Your task to perform on an android device: turn on showing notifications on the lock screen Image 0: 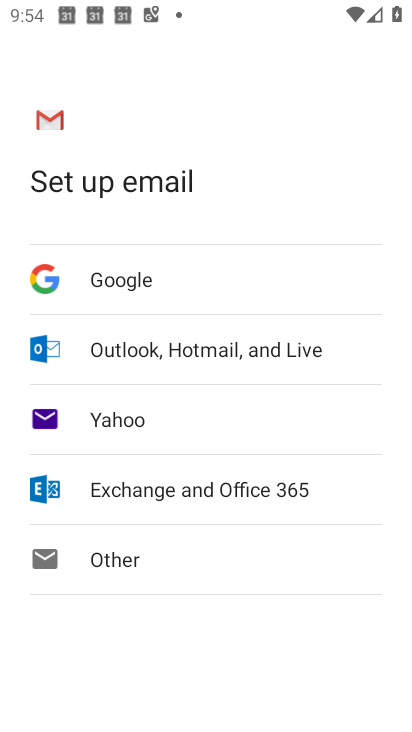
Step 0: press home button
Your task to perform on an android device: turn on showing notifications on the lock screen Image 1: 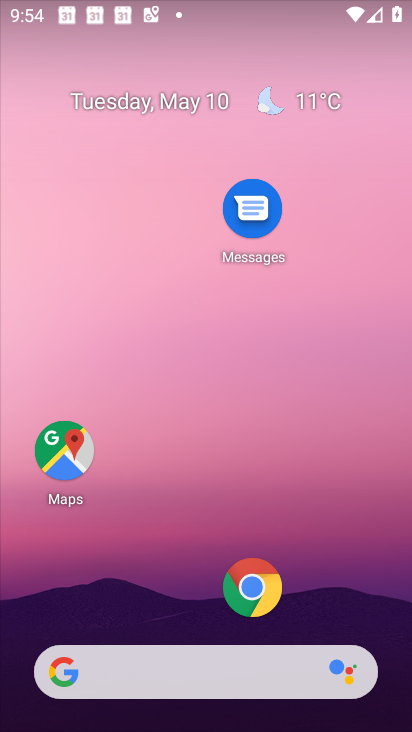
Step 1: drag from (155, 590) to (126, 4)
Your task to perform on an android device: turn on showing notifications on the lock screen Image 2: 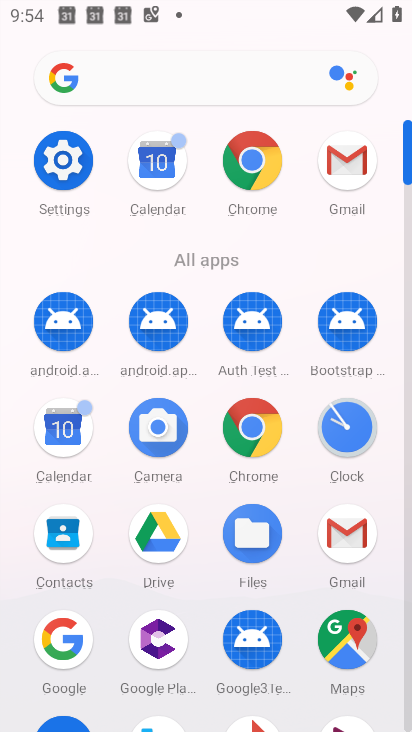
Step 2: click (81, 159)
Your task to perform on an android device: turn on showing notifications on the lock screen Image 3: 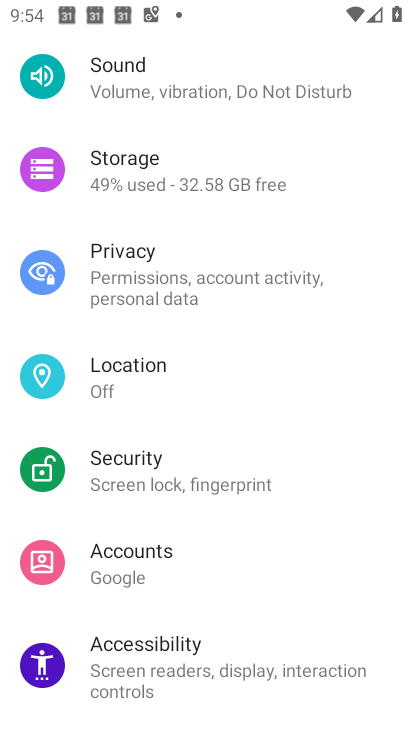
Step 3: drag from (195, 217) to (257, 704)
Your task to perform on an android device: turn on showing notifications on the lock screen Image 4: 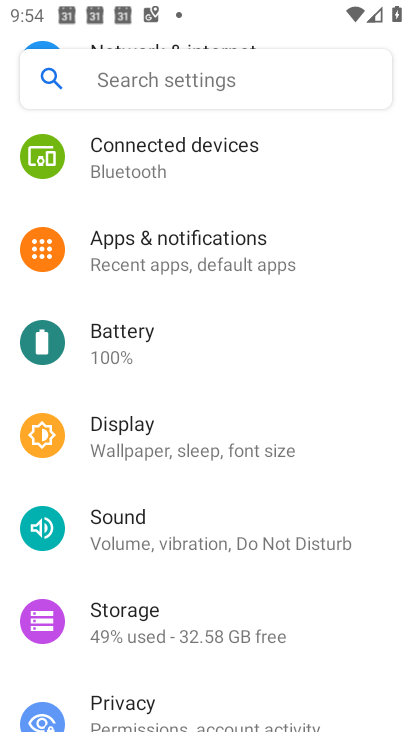
Step 4: click (231, 260)
Your task to perform on an android device: turn on showing notifications on the lock screen Image 5: 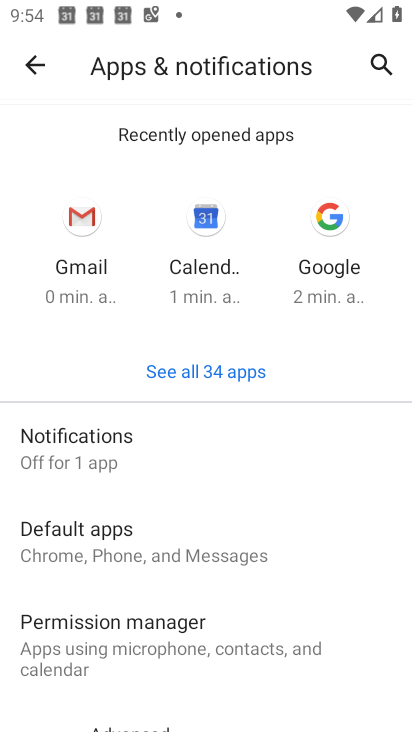
Step 5: click (102, 459)
Your task to perform on an android device: turn on showing notifications on the lock screen Image 6: 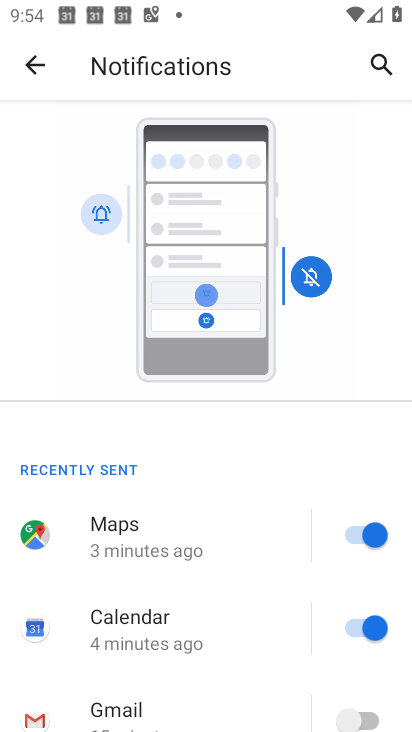
Step 6: drag from (129, 641) to (190, 206)
Your task to perform on an android device: turn on showing notifications on the lock screen Image 7: 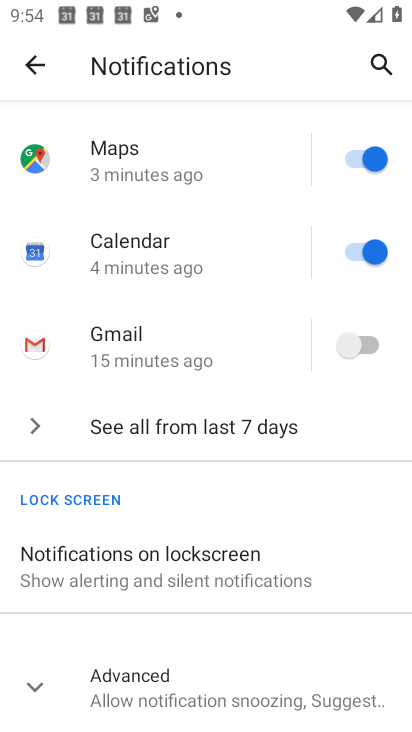
Step 7: click (180, 571)
Your task to perform on an android device: turn on showing notifications on the lock screen Image 8: 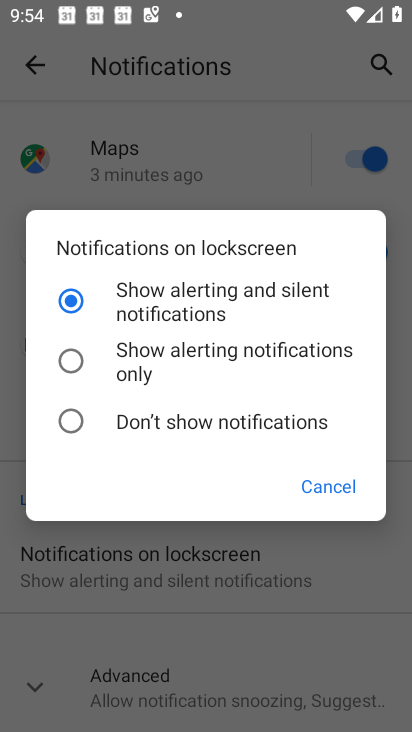
Step 8: click (181, 415)
Your task to perform on an android device: turn on showing notifications on the lock screen Image 9: 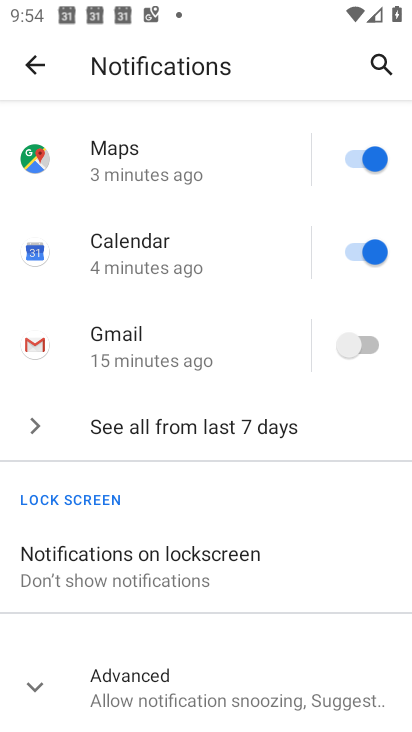
Step 9: task complete